Your task to perform on an android device: Open Chrome and go to settings Image 0: 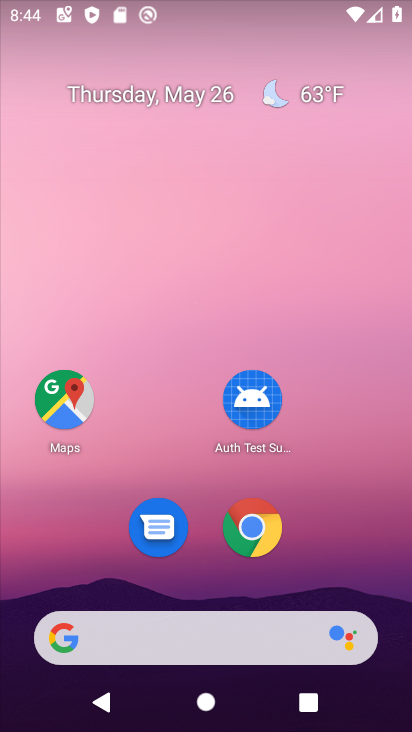
Step 0: drag from (339, 555) to (409, 9)
Your task to perform on an android device: Open Chrome and go to settings Image 1: 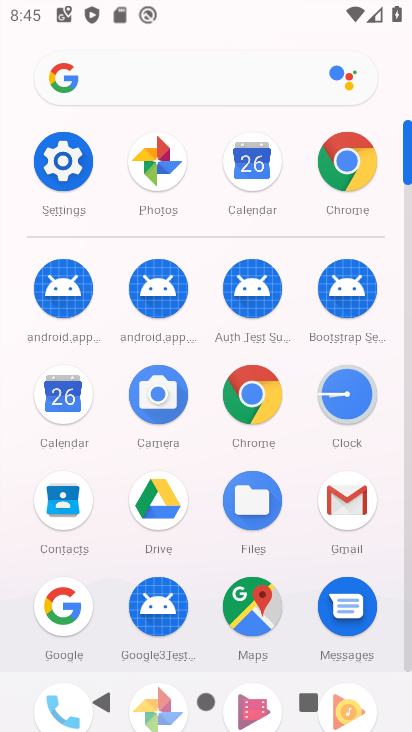
Step 1: click (358, 182)
Your task to perform on an android device: Open Chrome and go to settings Image 2: 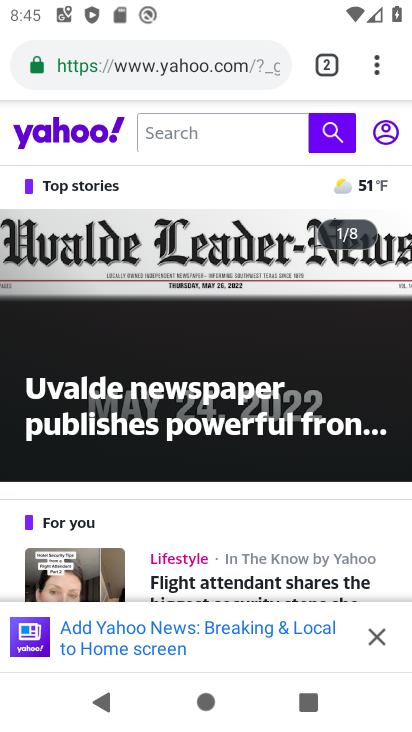
Step 2: task complete